Your task to perform on an android device: Open calendar and show me the first week of next month Image 0: 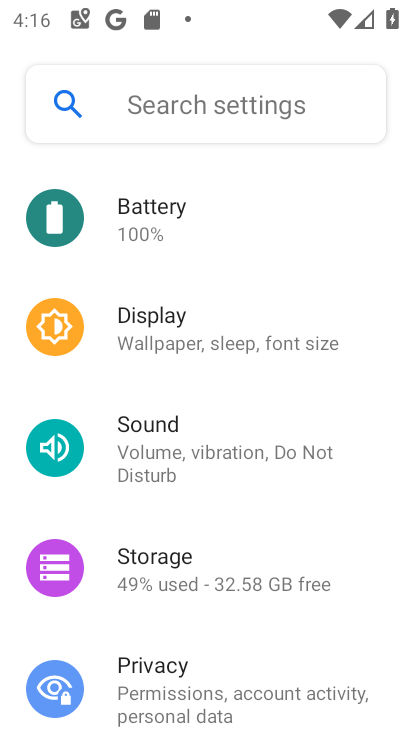
Step 0: press home button
Your task to perform on an android device: Open calendar and show me the first week of next month Image 1: 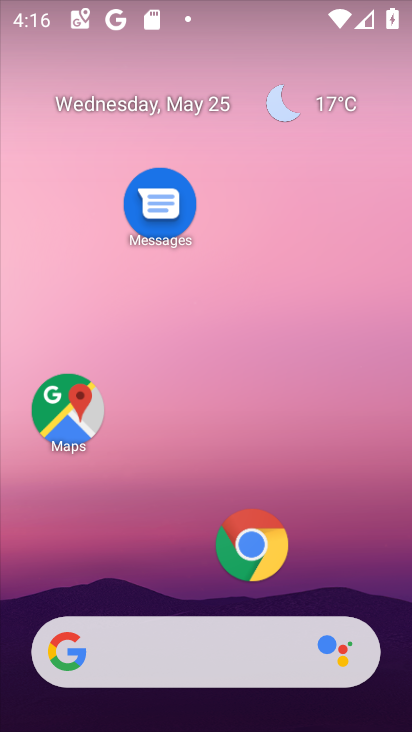
Step 1: click (185, 101)
Your task to perform on an android device: Open calendar and show me the first week of next month Image 2: 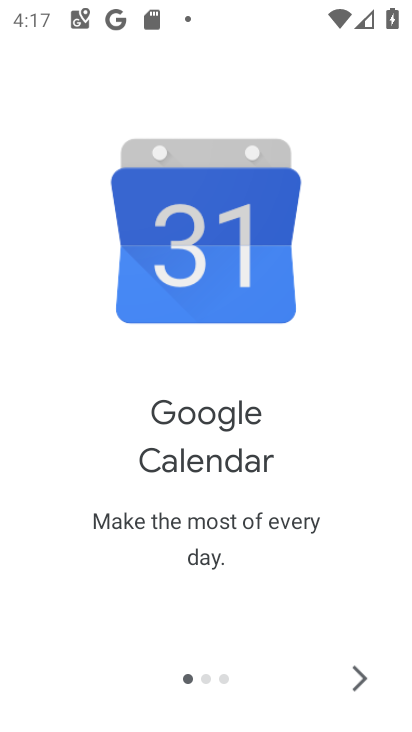
Step 2: click (361, 670)
Your task to perform on an android device: Open calendar and show me the first week of next month Image 3: 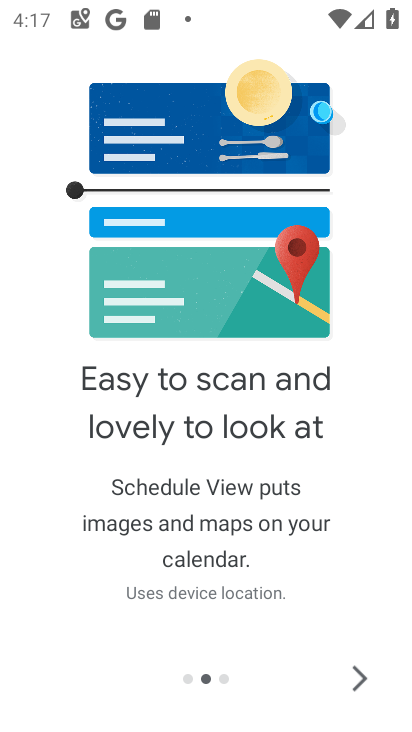
Step 3: click (361, 670)
Your task to perform on an android device: Open calendar and show me the first week of next month Image 4: 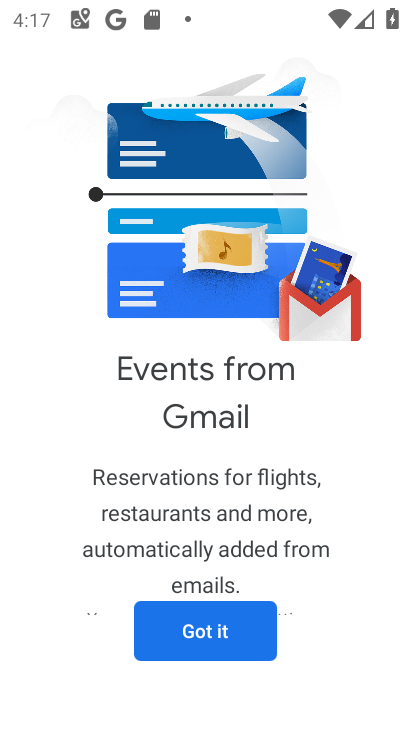
Step 4: click (220, 641)
Your task to perform on an android device: Open calendar and show me the first week of next month Image 5: 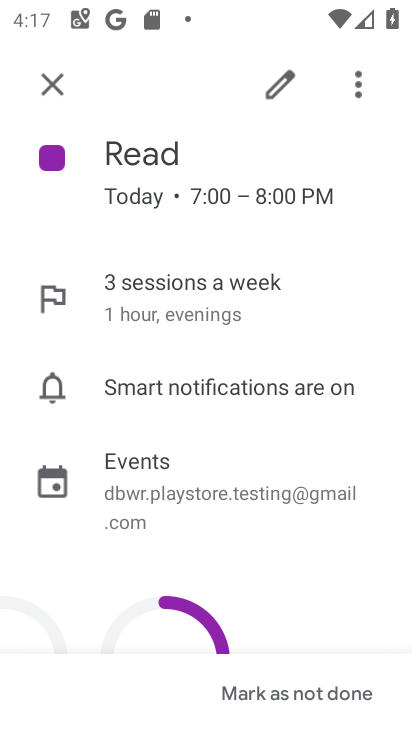
Step 5: click (61, 90)
Your task to perform on an android device: Open calendar and show me the first week of next month Image 6: 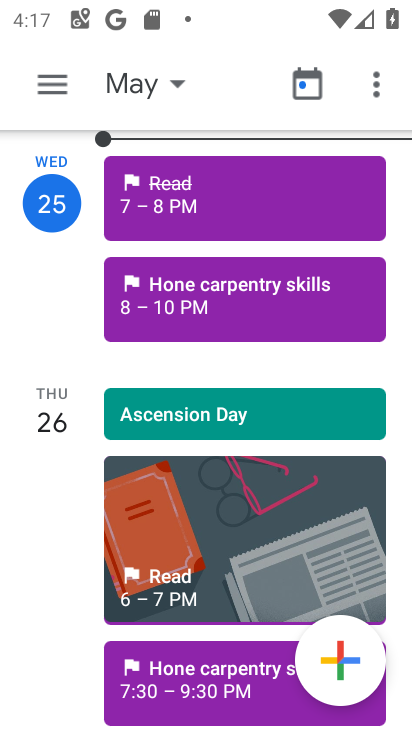
Step 6: click (51, 76)
Your task to perform on an android device: Open calendar and show me the first week of next month Image 7: 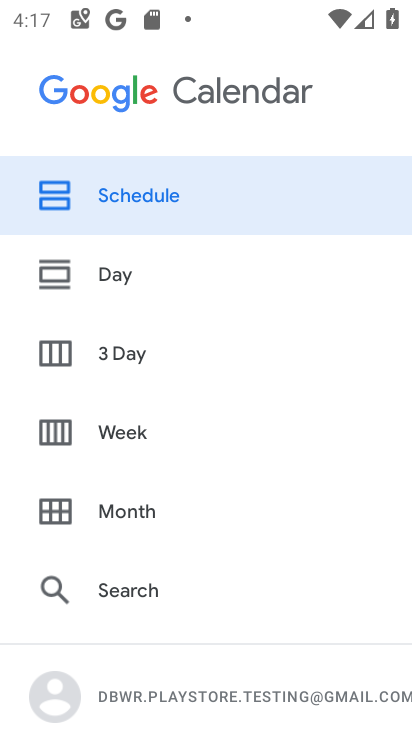
Step 7: click (133, 427)
Your task to perform on an android device: Open calendar and show me the first week of next month Image 8: 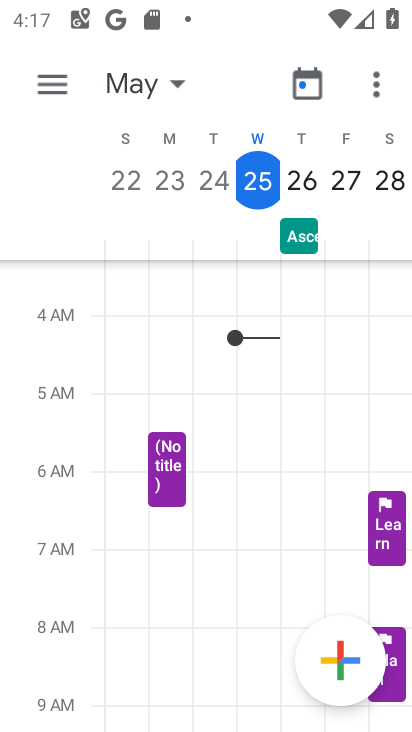
Step 8: click (171, 84)
Your task to perform on an android device: Open calendar and show me the first week of next month Image 9: 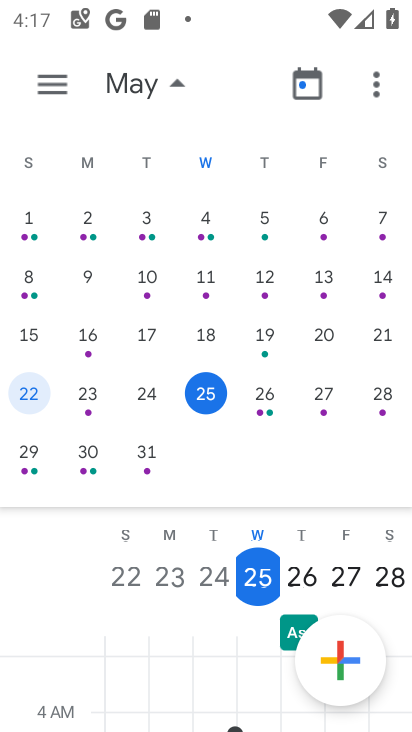
Step 9: drag from (321, 446) to (13, 424)
Your task to perform on an android device: Open calendar and show me the first week of next month Image 10: 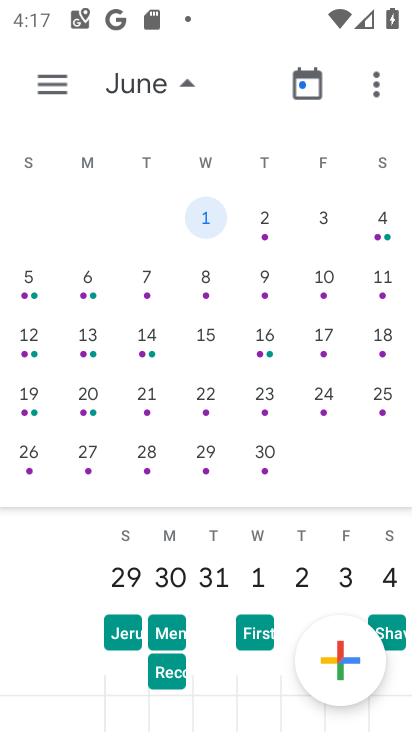
Step 10: click (245, 216)
Your task to perform on an android device: Open calendar and show me the first week of next month Image 11: 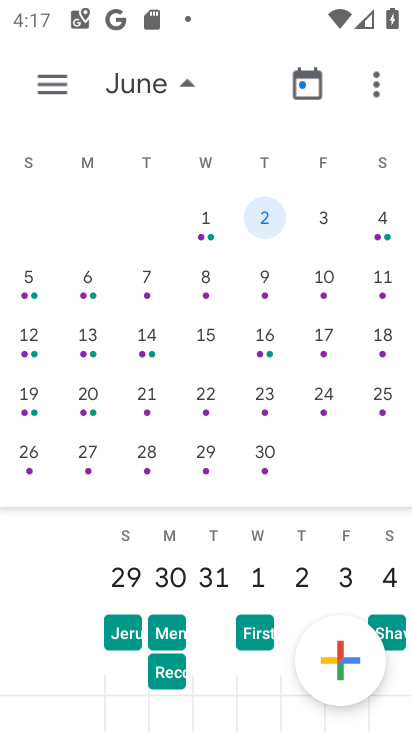
Step 11: task complete